Your task to perform on an android device: Searchfor good French restaurants Image 0: 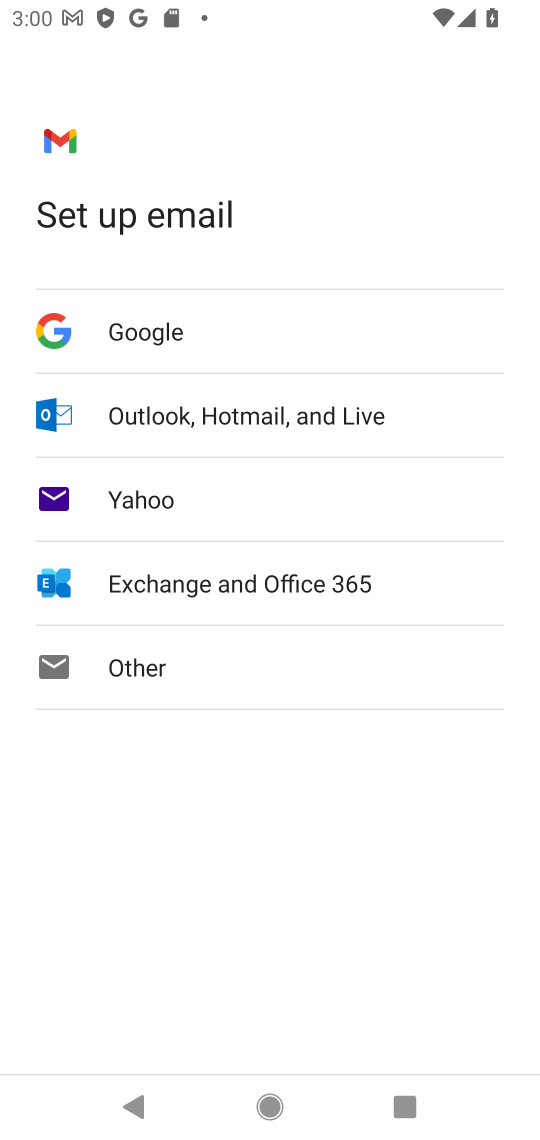
Step 0: press home button
Your task to perform on an android device: Searchfor good French restaurants Image 1: 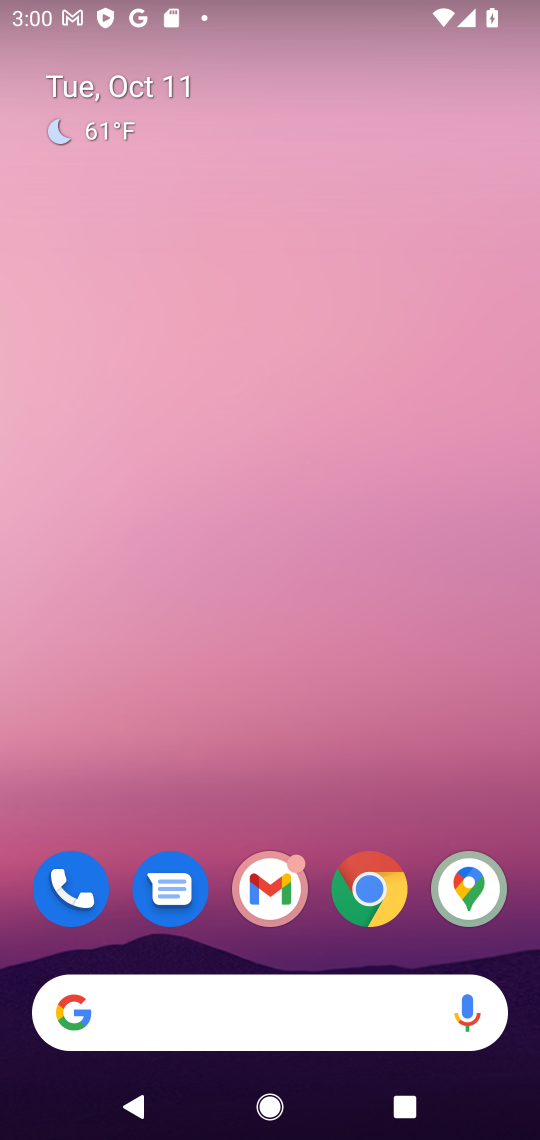
Step 1: drag from (202, 924) to (265, 322)
Your task to perform on an android device: Searchfor good French restaurants Image 2: 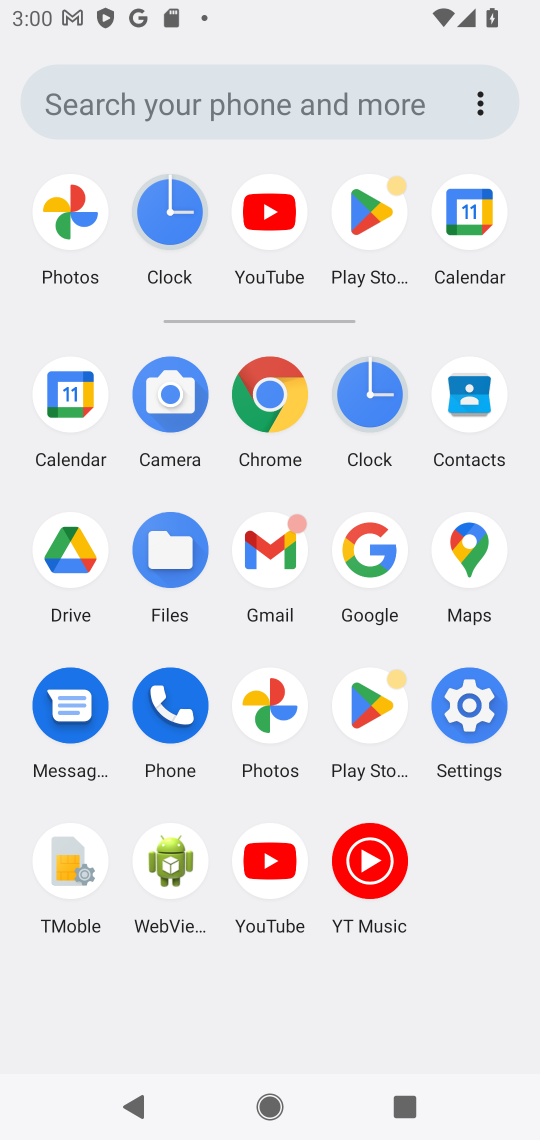
Step 2: click (470, 534)
Your task to perform on an android device: Searchfor good French restaurants Image 3: 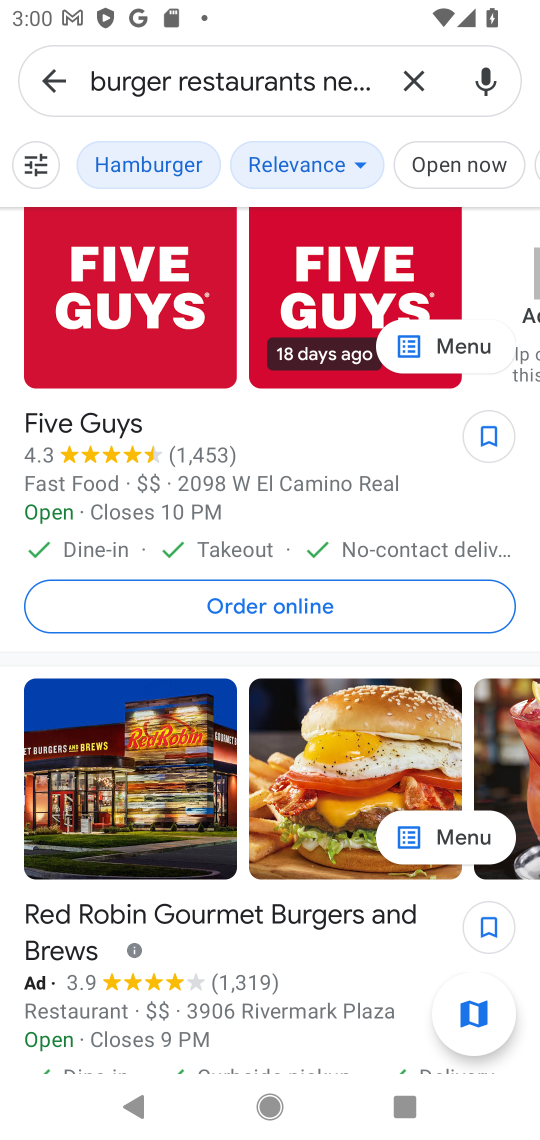
Step 3: click (422, 80)
Your task to perform on an android device: Searchfor good French restaurants Image 4: 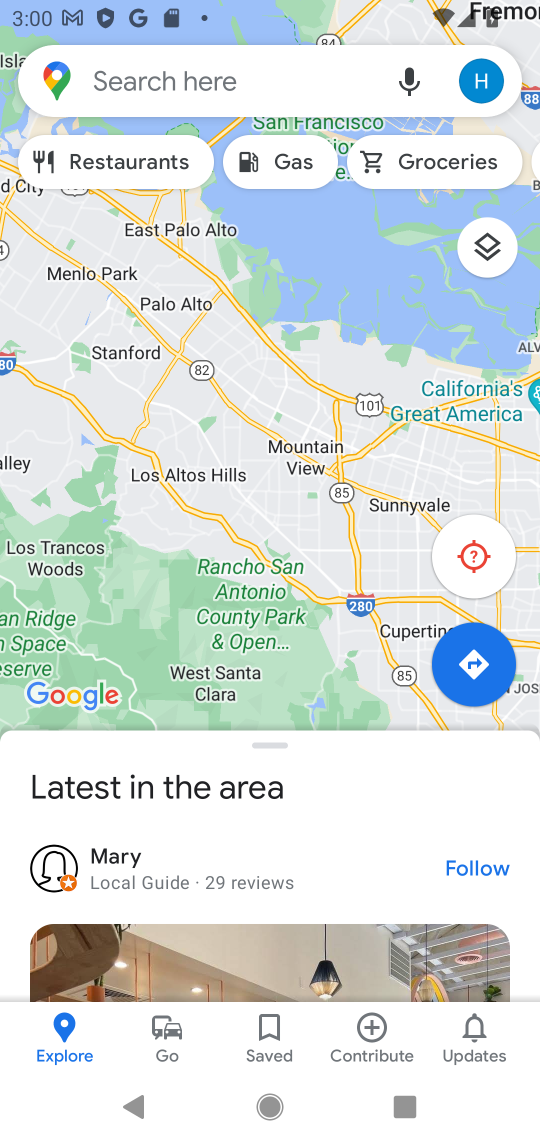
Step 4: click (144, 70)
Your task to perform on an android device: Searchfor good French restaurants Image 5: 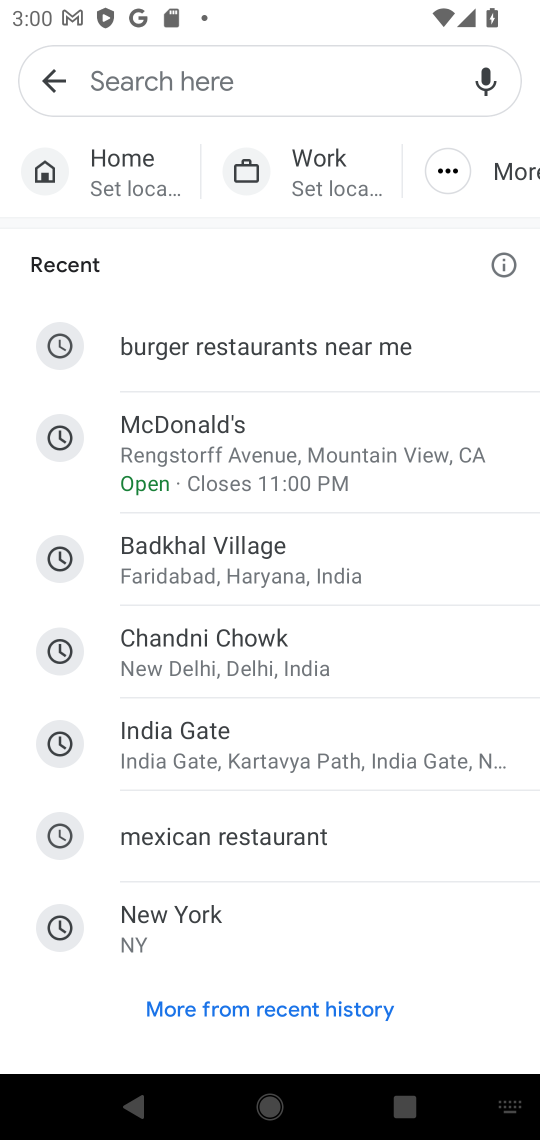
Step 5: type "French restaurants"
Your task to perform on an android device: Searchfor good French restaurants Image 6: 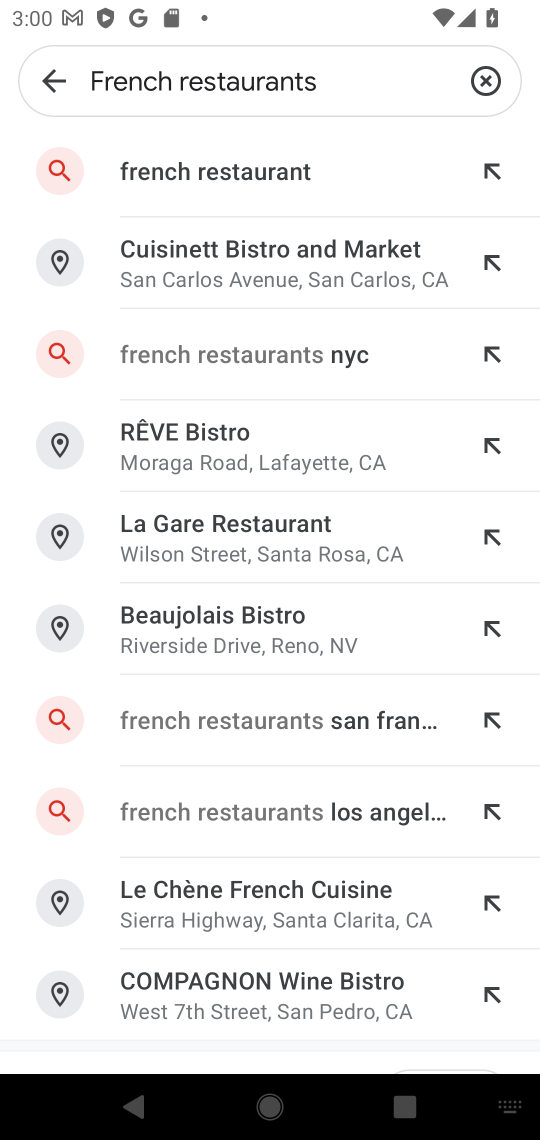
Step 6: click (146, 158)
Your task to perform on an android device: Searchfor good French restaurants Image 7: 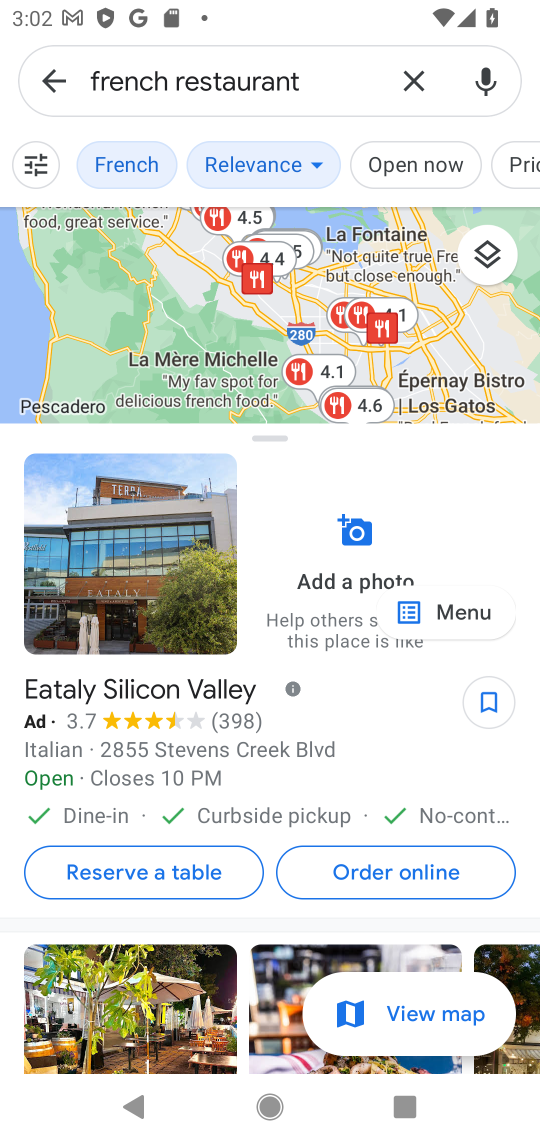
Step 7: task complete